Your task to perform on an android device: Go to network settings Image 0: 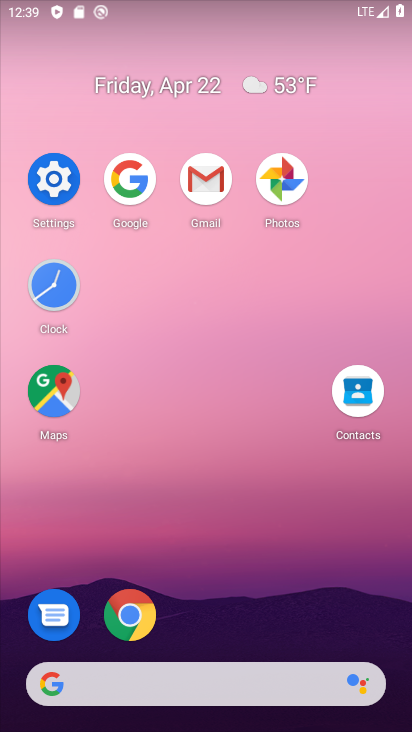
Step 0: click (54, 164)
Your task to perform on an android device: Go to network settings Image 1: 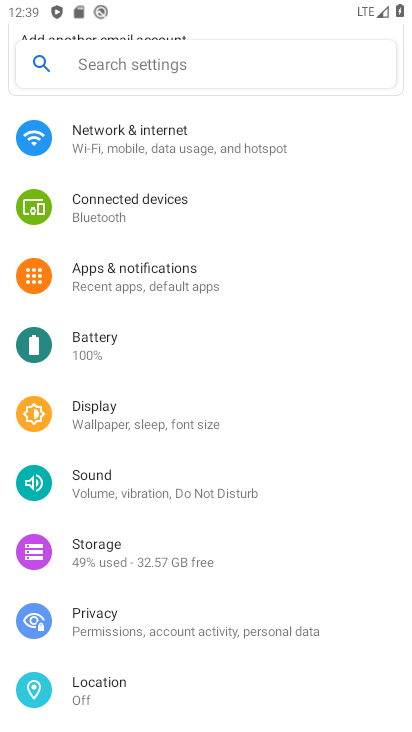
Step 1: click (229, 145)
Your task to perform on an android device: Go to network settings Image 2: 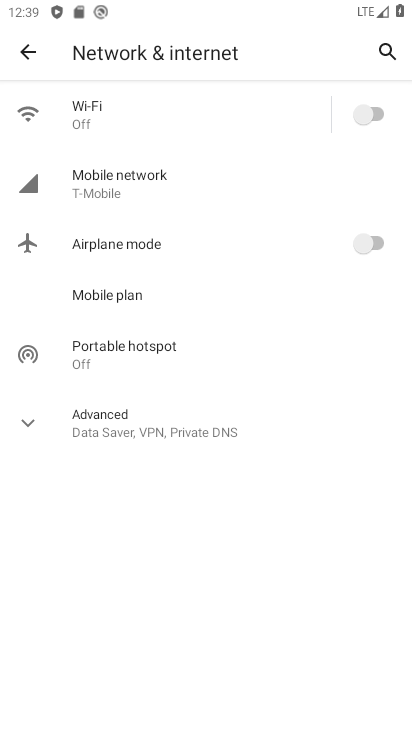
Step 2: click (163, 177)
Your task to perform on an android device: Go to network settings Image 3: 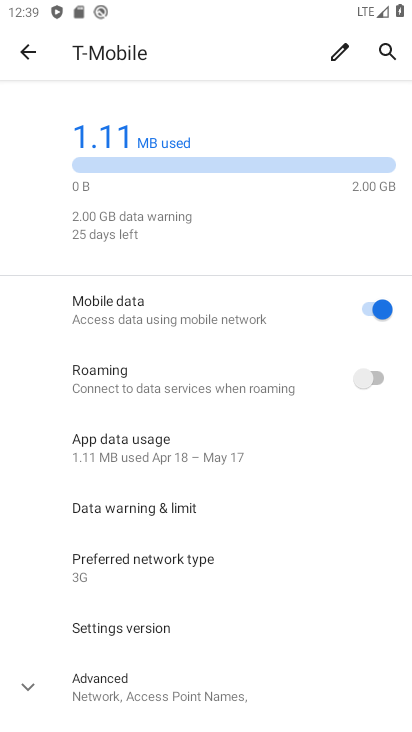
Step 3: task complete